Your task to perform on an android device: Open location settings Image 0: 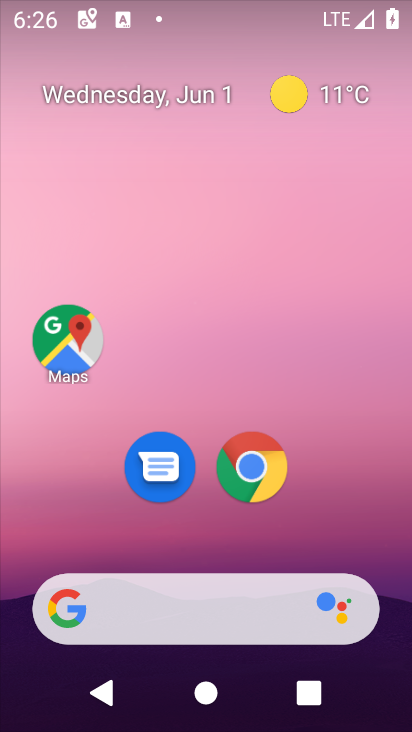
Step 0: drag from (327, 419) to (103, 1)
Your task to perform on an android device: Open location settings Image 1: 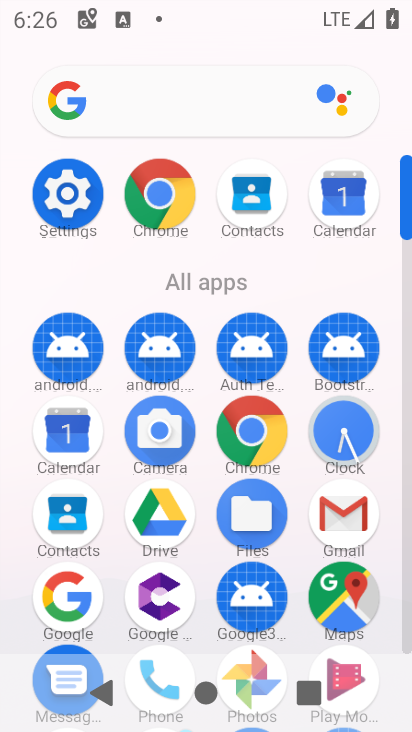
Step 1: click (60, 204)
Your task to perform on an android device: Open location settings Image 2: 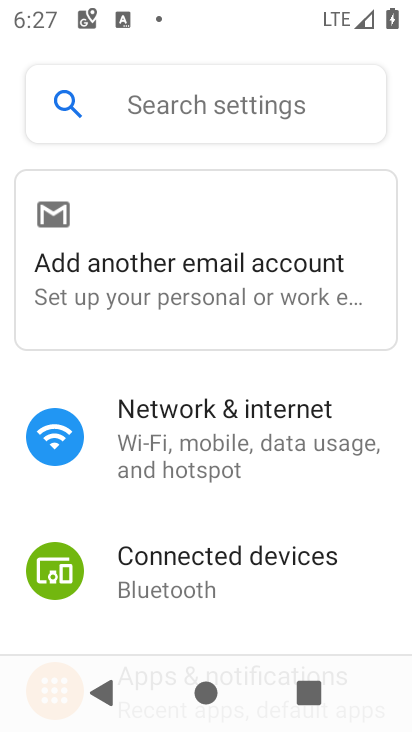
Step 2: drag from (268, 585) to (221, 10)
Your task to perform on an android device: Open location settings Image 3: 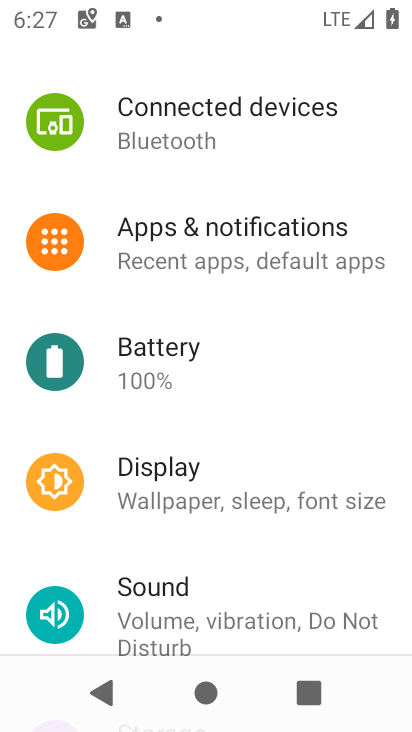
Step 3: drag from (263, 505) to (245, 86)
Your task to perform on an android device: Open location settings Image 4: 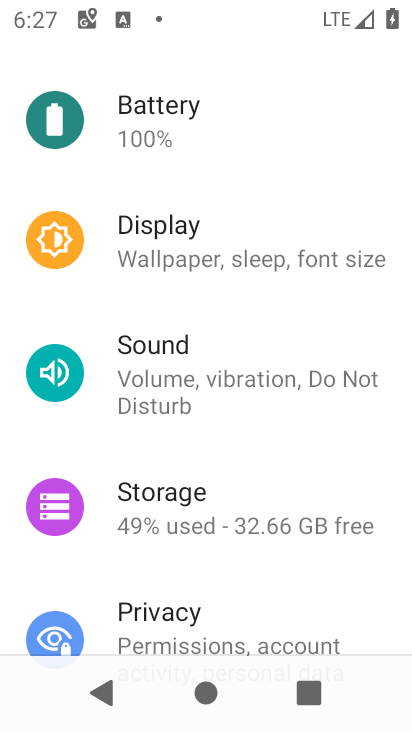
Step 4: drag from (224, 468) to (212, 91)
Your task to perform on an android device: Open location settings Image 5: 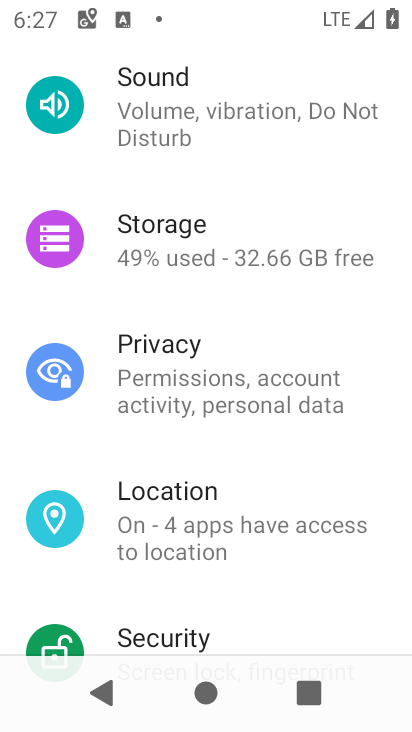
Step 5: click (220, 502)
Your task to perform on an android device: Open location settings Image 6: 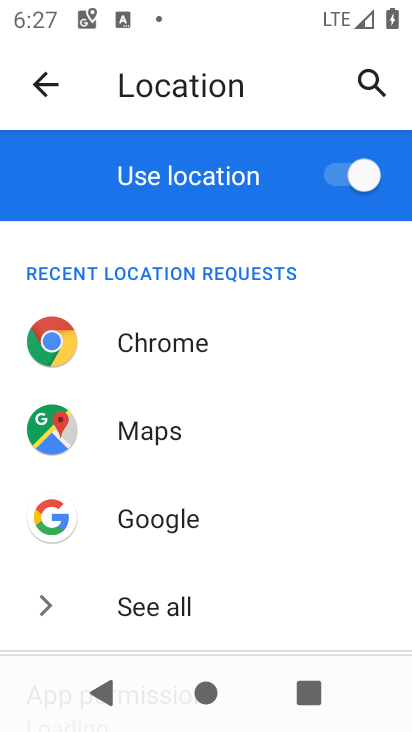
Step 6: task complete